Your task to perform on an android device: Open maps Image 0: 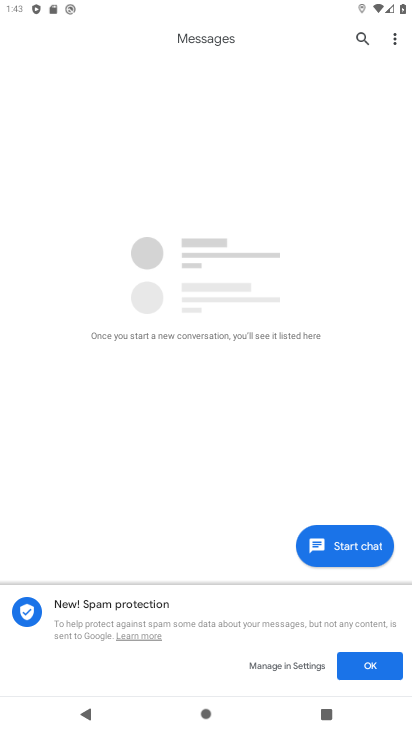
Step 0: press home button
Your task to perform on an android device: Open maps Image 1: 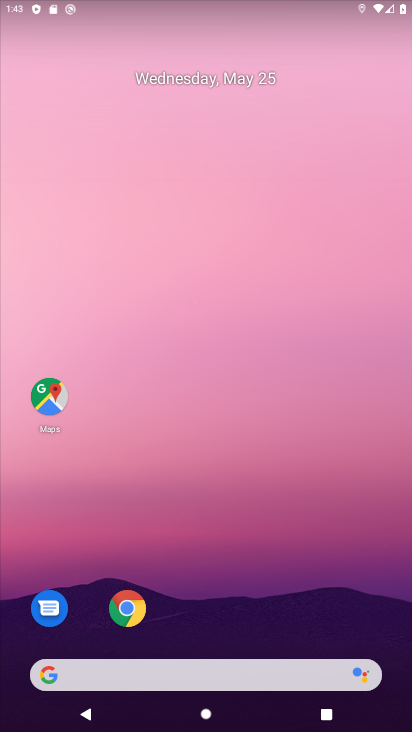
Step 1: click (47, 392)
Your task to perform on an android device: Open maps Image 2: 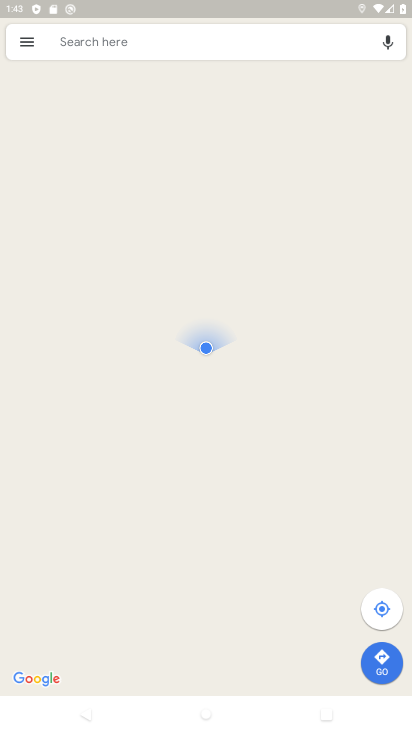
Step 2: task complete